Your task to perform on an android device: What's the weather going to be this weekend? Image 0: 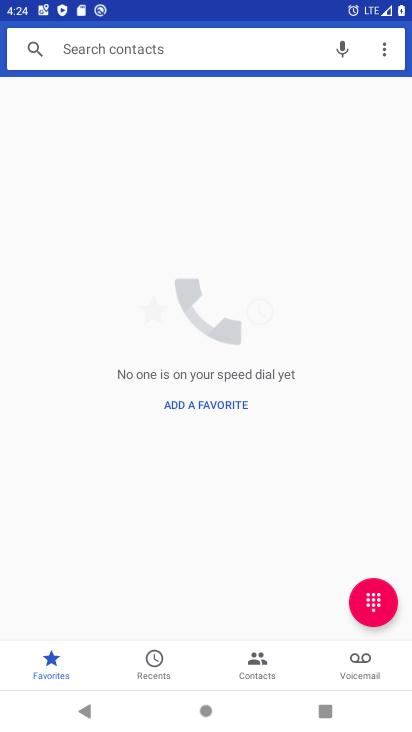
Step 0: press home button
Your task to perform on an android device: What's the weather going to be this weekend? Image 1: 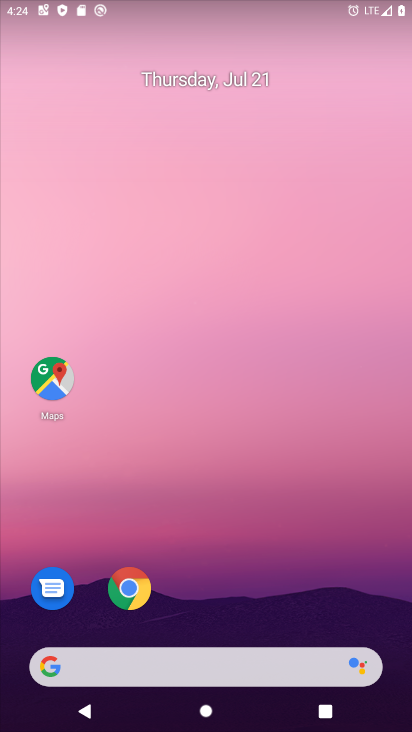
Step 1: drag from (242, 585) to (241, 95)
Your task to perform on an android device: What's the weather going to be this weekend? Image 2: 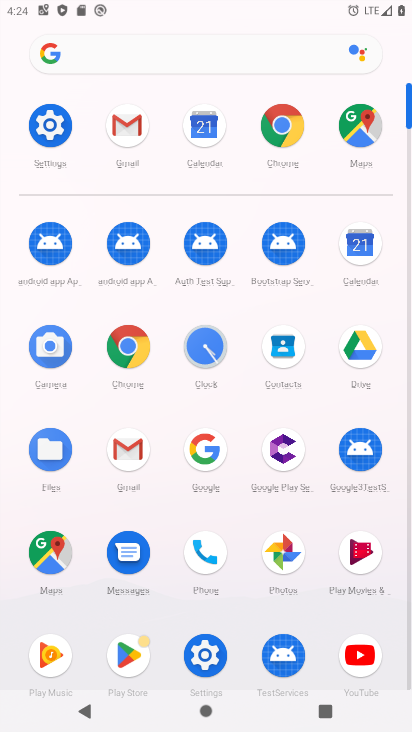
Step 2: click (361, 133)
Your task to perform on an android device: What's the weather going to be this weekend? Image 3: 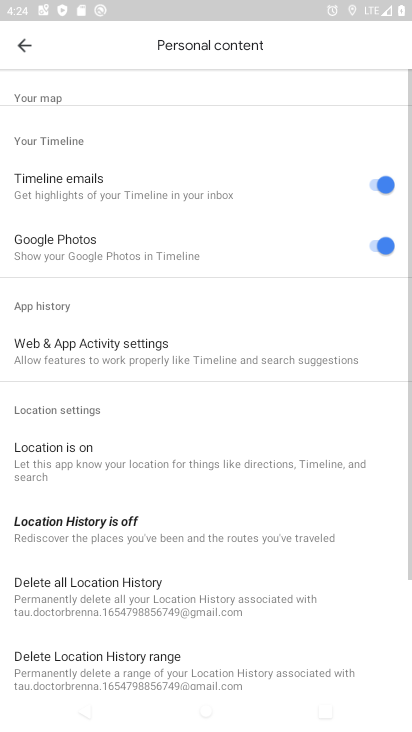
Step 3: click (15, 42)
Your task to perform on an android device: What's the weather going to be this weekend? Image 4: 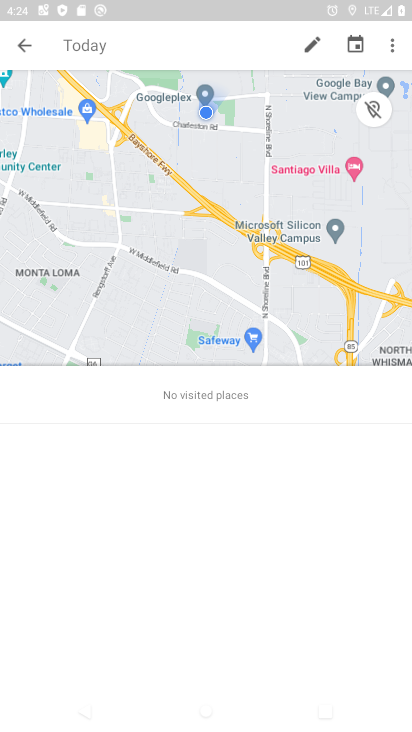
Step 4: click (25, 47)
Your task to perform on an android device: What's the weather going to be this weekend? Image 5: 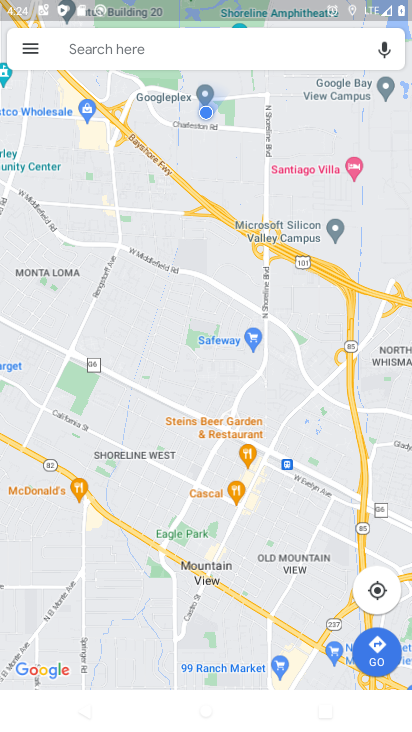
Step 5: click (87, 57)
Your task to perform on an android device: What's the weather going to be this weekend? Image 6: 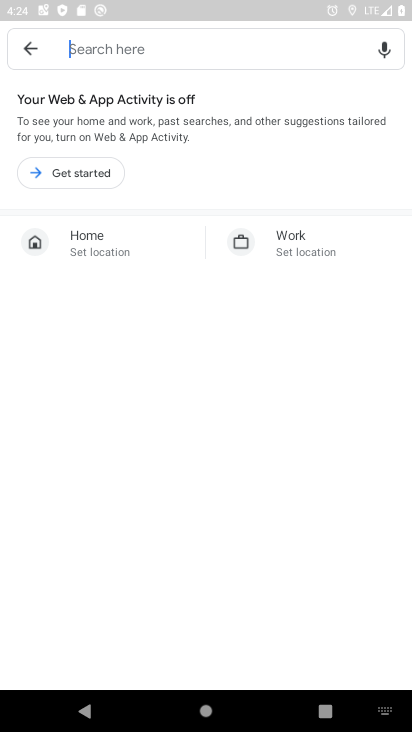
Step 6: press home button
Your task to perform on an android device: What's the weather going to be this weekend? Image 7: 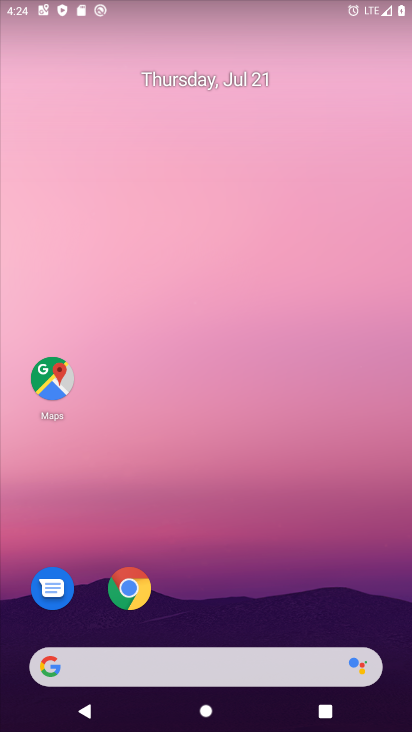
Step 7: click (142, 580)
Your task to perform on an android device: What's the weather going to be this weekend? Image 8: 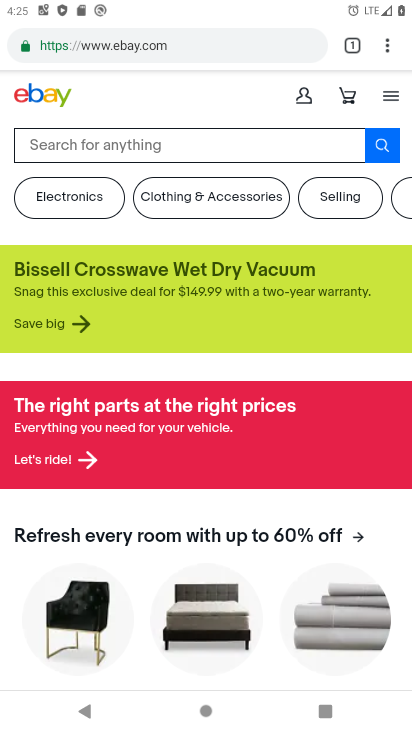
Step 8: click (119, 43)
Your task to perform on an android device: What's the weather going to be this weekend? Image 9: 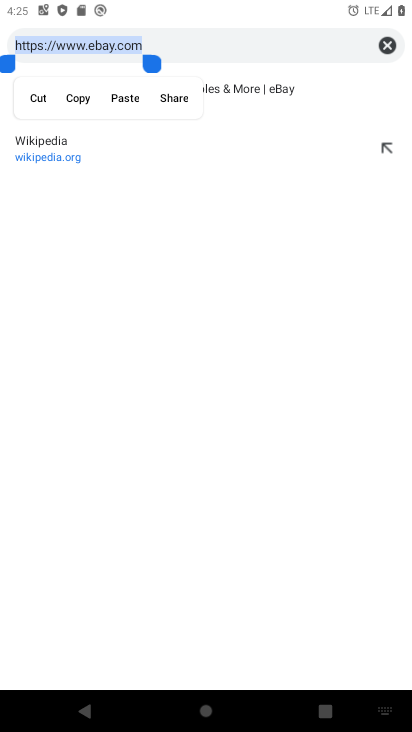
Step 9: click (119, 43)
Your task to perform on an android device: What's the weather going to be this weekend? Image 10: 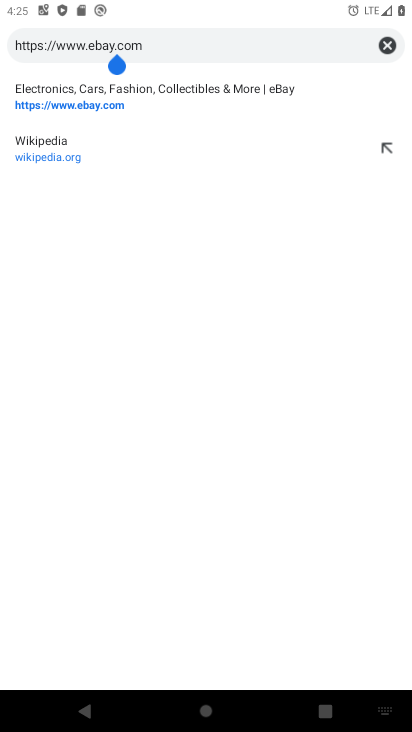
Step 10: click (393, 41)
Your task to perform on an android device: What's the weather going to be this weekend? Image 11: 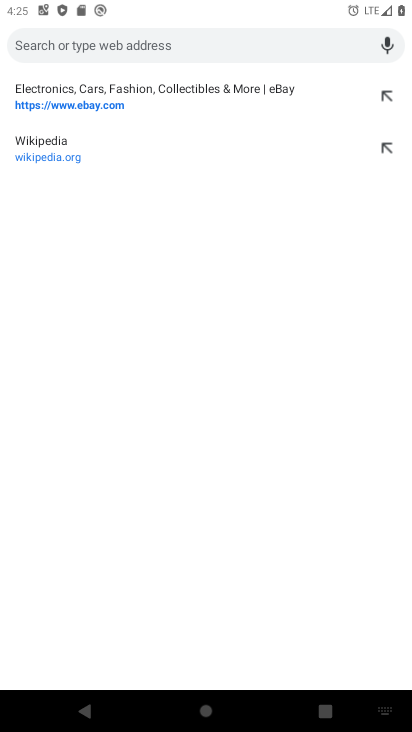
Step 11: type "What's the weather going to be this weekend?"
Your task to perform on an android device: What's the weather going to be this weekend? Image 12: 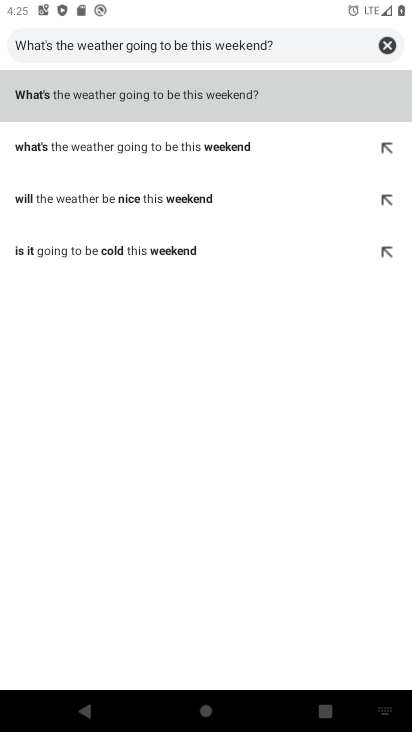
Step 12: click (112, 92)
Your task to perform on an android device: What's the weather going to be this weekend? Image 13: 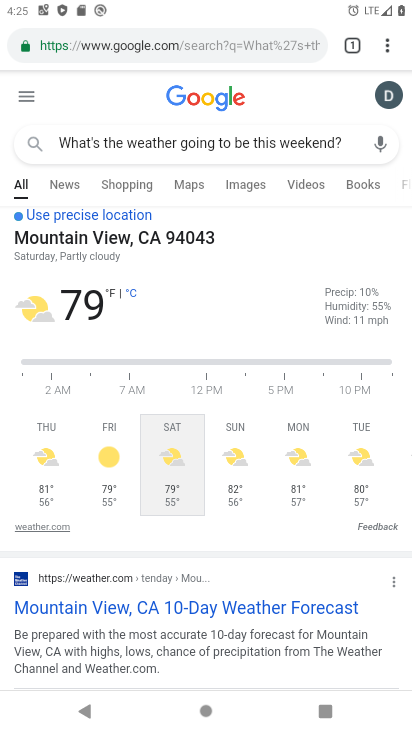
Step 13: task complete